Your task to perform on an android device: toggle location history Image 0: 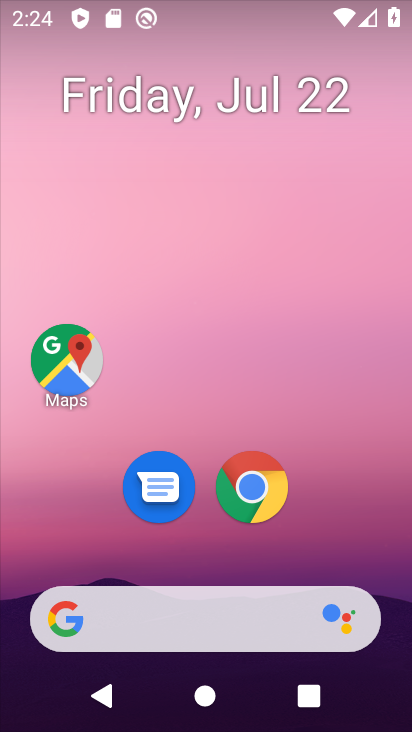
Step 0: drag from (195, 578) to (250, 23)
Your task to perform on an android device: toggle location history Image 1: 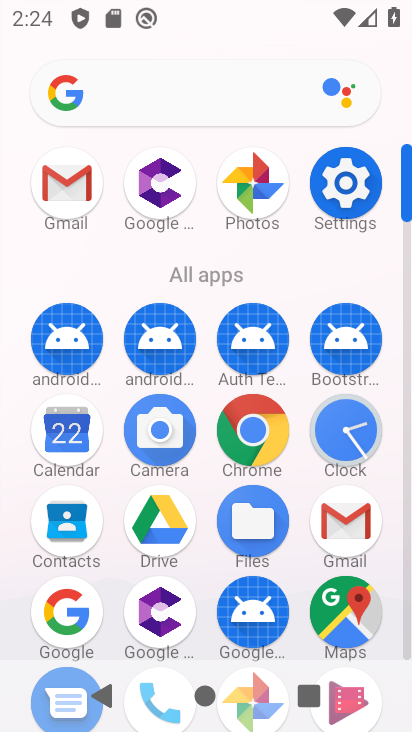
Step 1: click (339, 173)
Your task to perform on an android device: toggle location history Image 2: 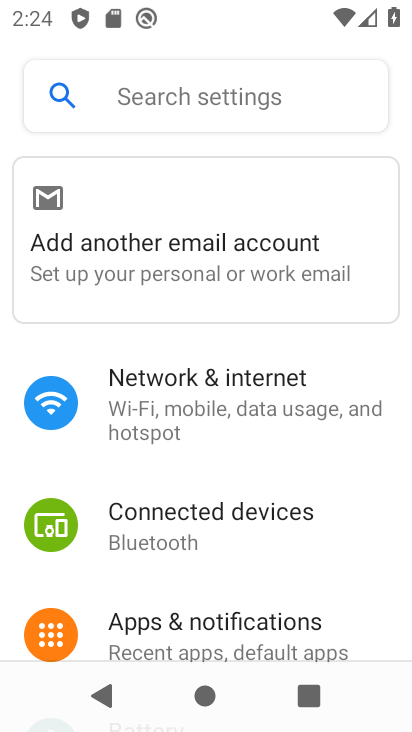
Step 2: drag from (177, 608) to (248, 147)
Your task to perform on an android device: toggle location history Image 3: 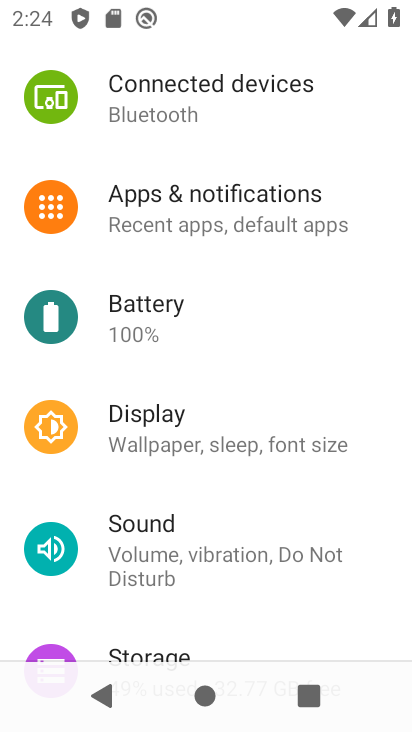
Step 3: drag from (171, 592) to (238, 263)
Your task to perform on an android device: toggle location history Image 4: 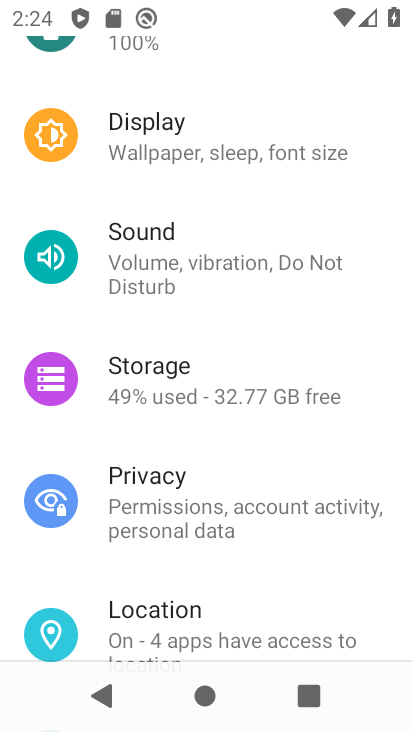
Step 4: click (188, 623)
Your task to perform on an android device: toggle location history Image 5: 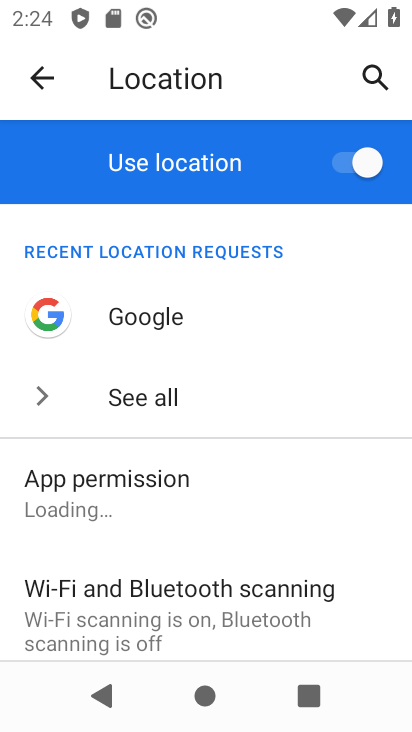
Step 5: drag from (198, 619) to (254, 202)
Your task to perform on an android device: toggle location history Image 6: 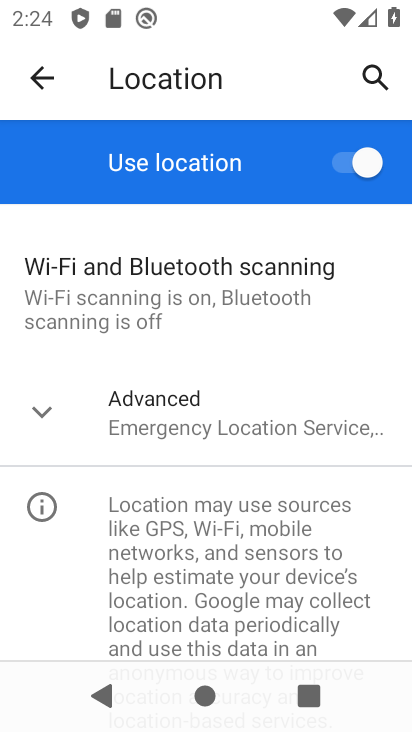
Step 6: click (199, 412)
Your task to perform on an android device: toggle location history Image 7: 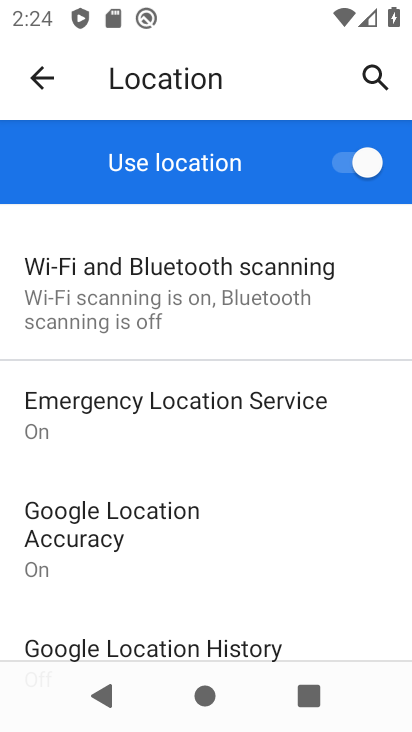
Step 7: click (179, 640)
Your task to perform on an android device: toggle location history Image 8: 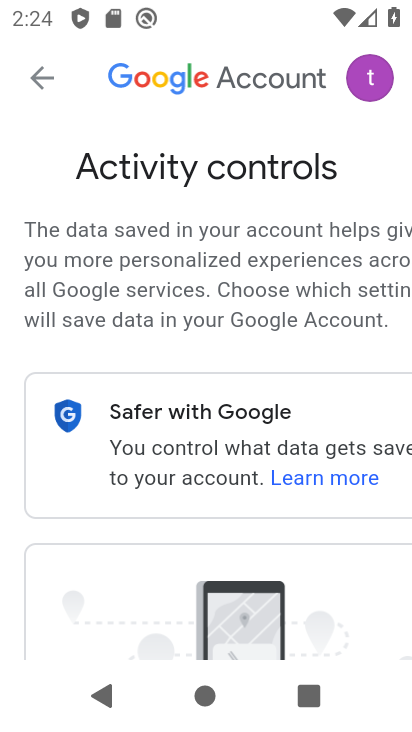
Step 8: drag from (162, 622) to (152, 159)
Your task to perform on an android device: toggle location history Image 9: 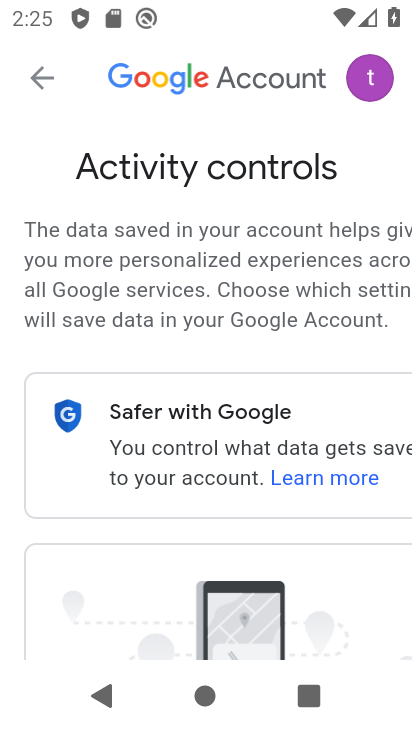
Step 9: drag from (295, 664) to (234, 124)
Your task to perform on an android device: toggle location history Image 10: 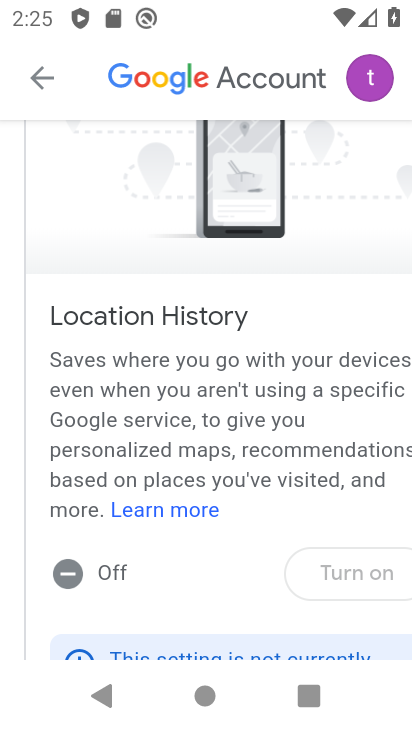
Step 10: click (329, 573)
Your task to perform on an android device: toggle location history Image 11: 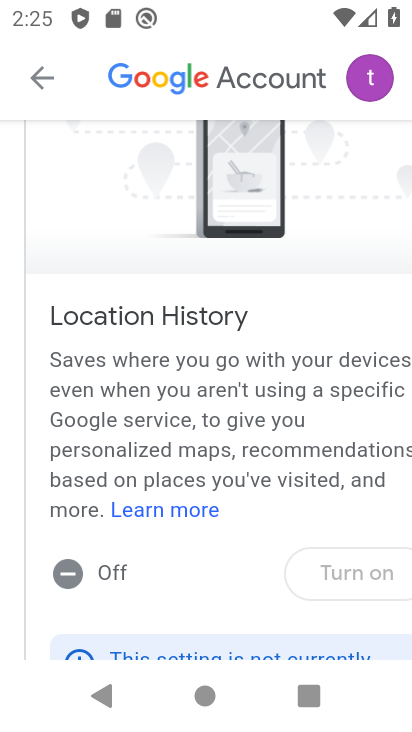
Step 11: task complete